Your task to perform on an android device: toggle priority inbox in the gmail app Image 0: 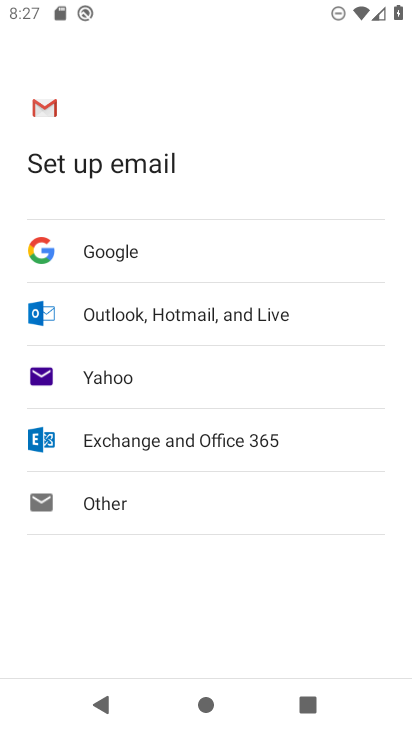
Step 0: press home button
Your task to perform on an android device: toggle priority inbox in the gmail app Image 1: 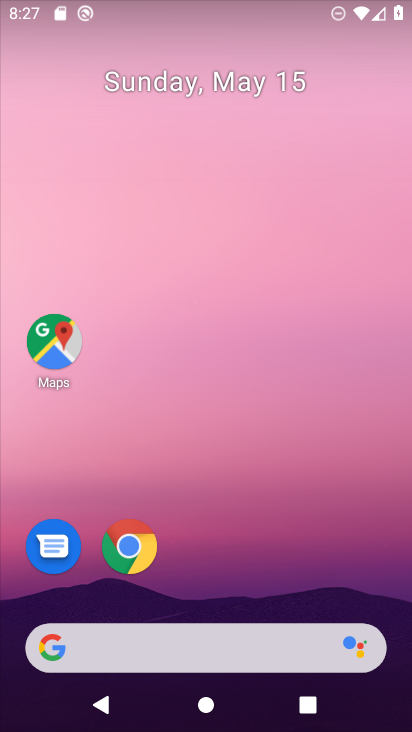
Step 1: drag from (246, 464) to (212, 62)
Your task to perform on an android device: toggle priority inbox in the gmail app Image 2: 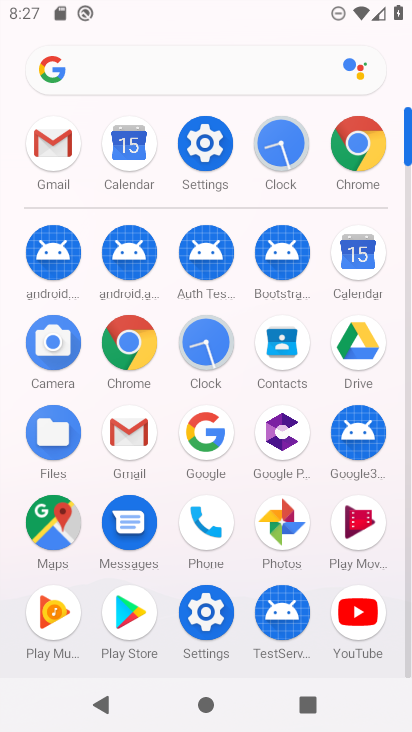
Step 2: click (52, 142)
Your task to perform on an android device: toggle priority inbox in the gmail app Image 3: 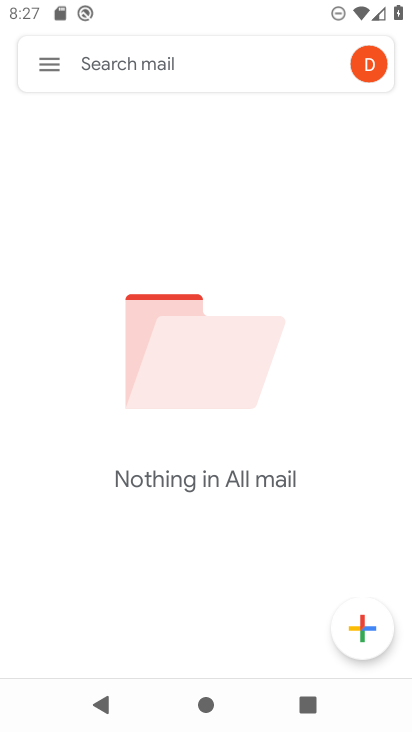
Step 3: click (51, 64)
Your task to perform on an android device: toggle priority inbox in the gmail app Image 4: 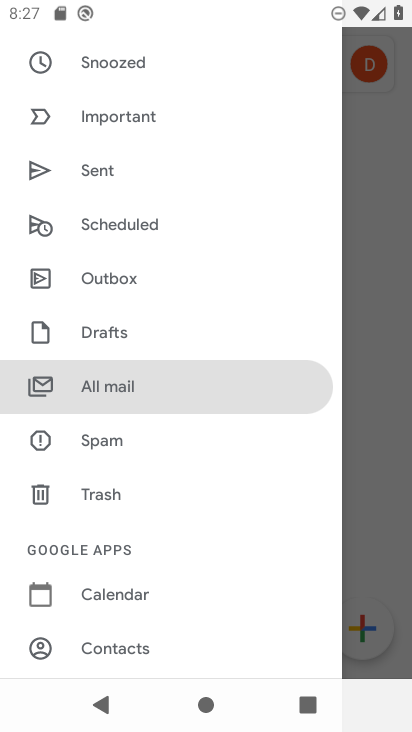
Step 4: drag from (163, 576) to (185, 326)
Your task to perform on an android device: toggle priority inbox in the gmail app Image 5: 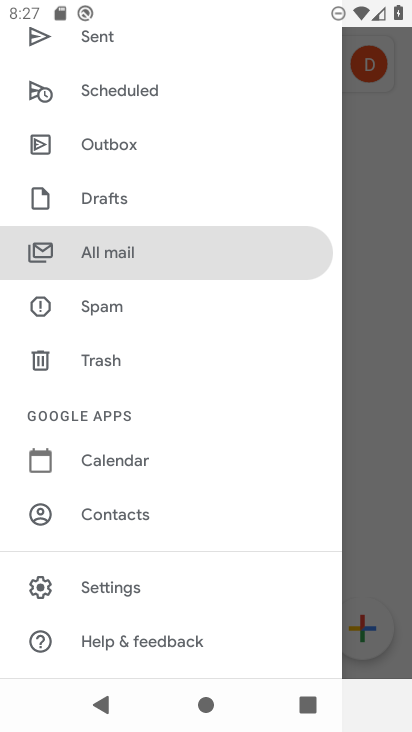
Step 5: click (152, 577)
Your task to perform on an android device: toggle priority inbox in the gmail app Image 6: 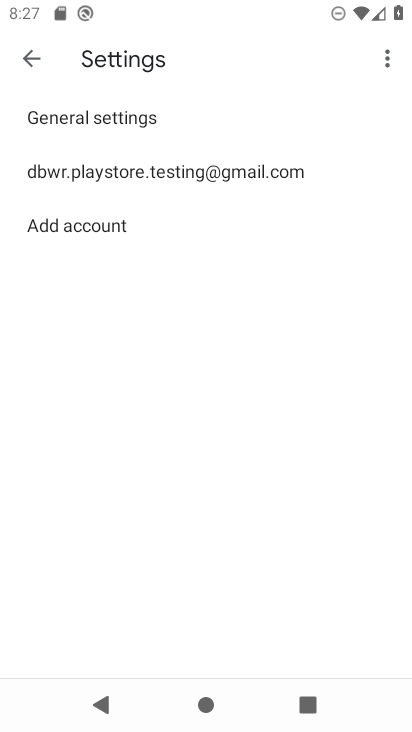
Step 6: click (95, 157)
Your task to perform on an android device: toggle priority inbox in the gmail app Image 7: 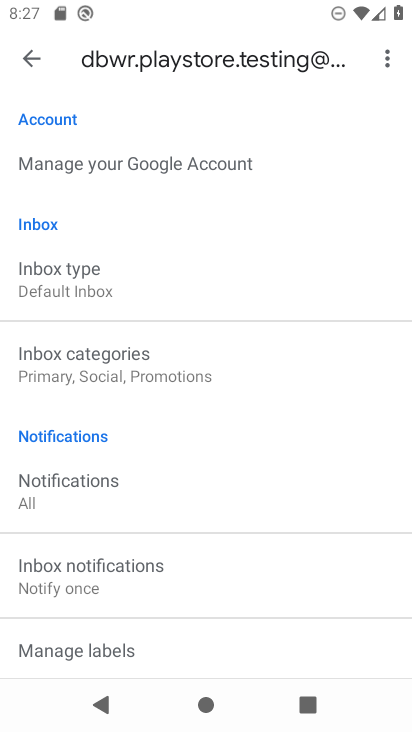
Step 7: click (73, 283)
Your task to perform on an android device: toggle priority inbox in the gmail app Image 8: 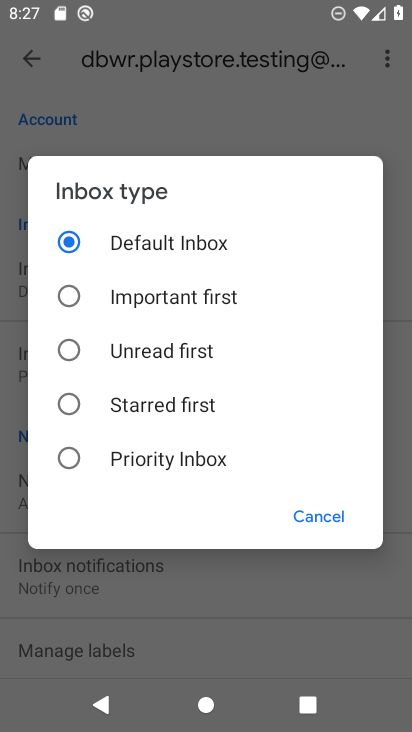
Step 8: click (118, 455)
Your task to perform on an android device: toggle priority inbox in the gmail app Image 9: 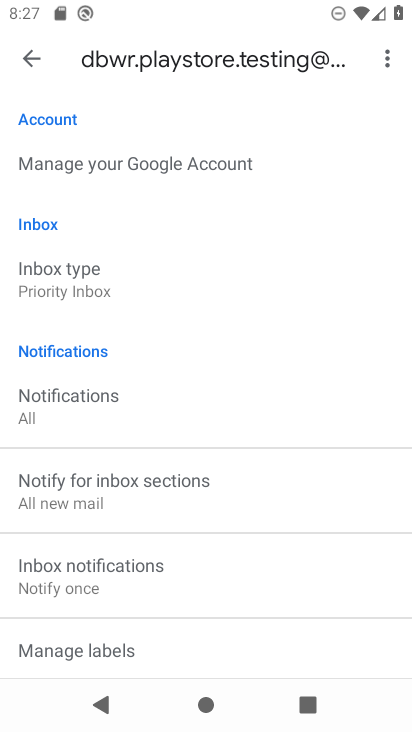
Step 9: task complete